Your task to perform on an android device: Open privacy settings Image 0: 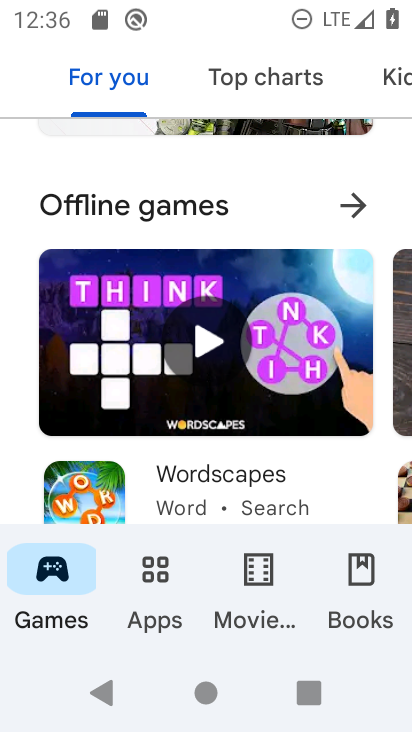
Step 0: press home button
Your task to perform on an android device: Open privacy settings Image 1: 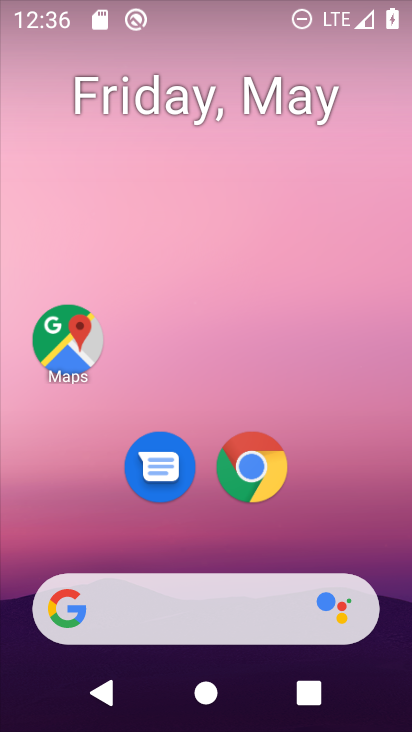
Step 1: drag from (286, 610) to (349, 63)
Your task to perform on an android device: Open privacy settings Image 2: 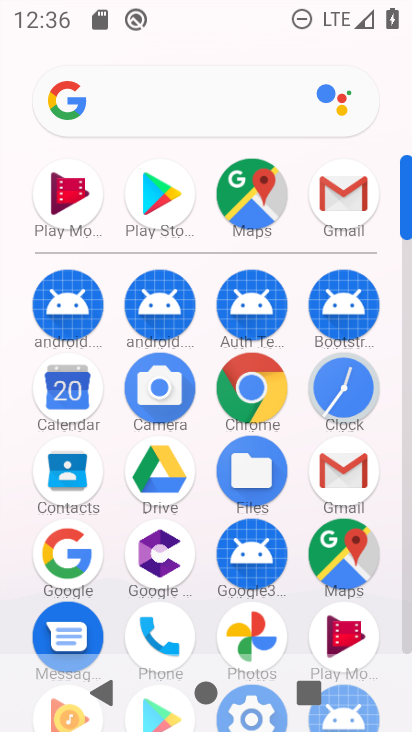
Step 2: drag from (294, 623) to (301, 252)
Your task to perform on an android device: Open privacy settings Image 3: 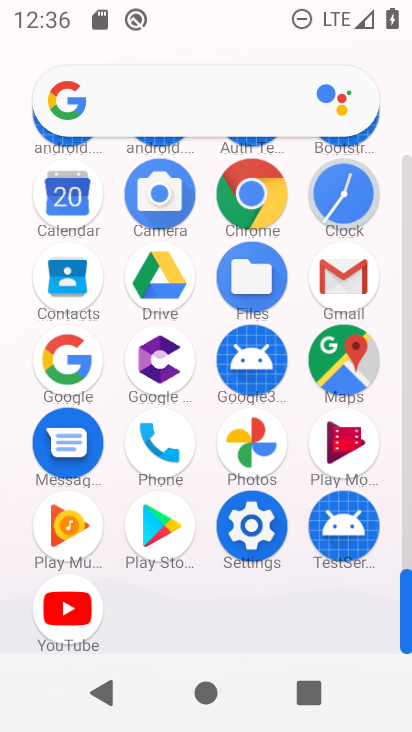
Step 3: click (269, 538)
Your task to perform on an android device: Open privacy settings Image 4: 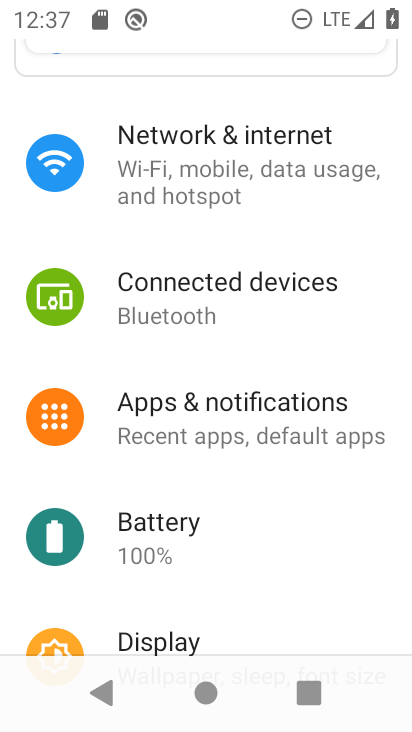
Step 4: drag from (250, 629) to (372, 41)
Your task to perform on an android device: Open privacy settings Image 5: 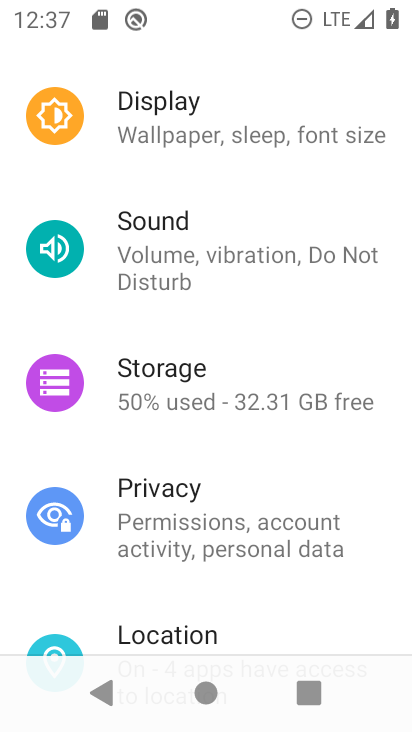
Step 5: click (213, 525)
Your task to perform on an android device: Open privacy settings Image 6: 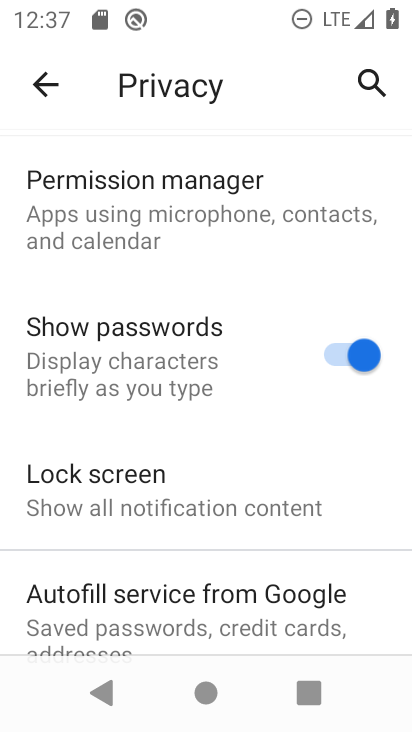
Step 6: task complete